Your task to perform on an android device: change your default location settings in chrome Image 0: 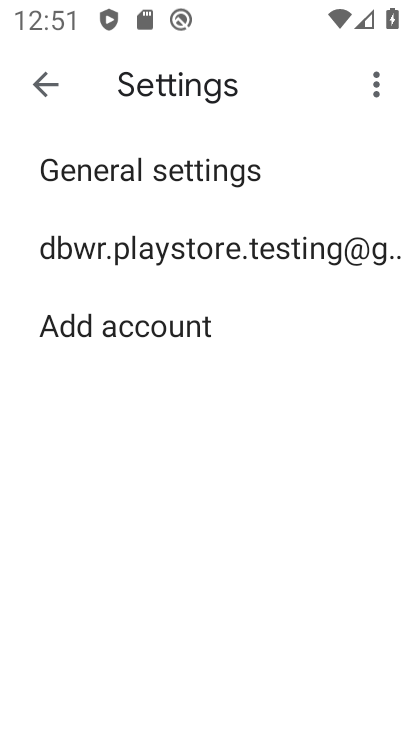
Step 0: press home button
Your task to perform on an android device: change your default location settings in chrome Image 1: 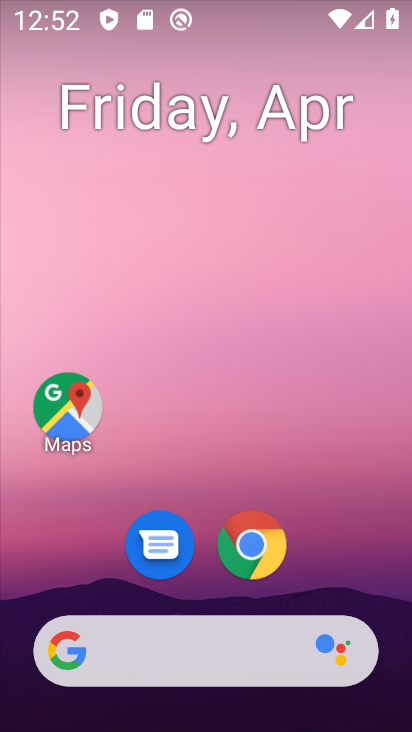
Step 1: drag from (318, 379) to (310, 60)
Your task to perform on an android device: change your default location settings in chrome Image 2: 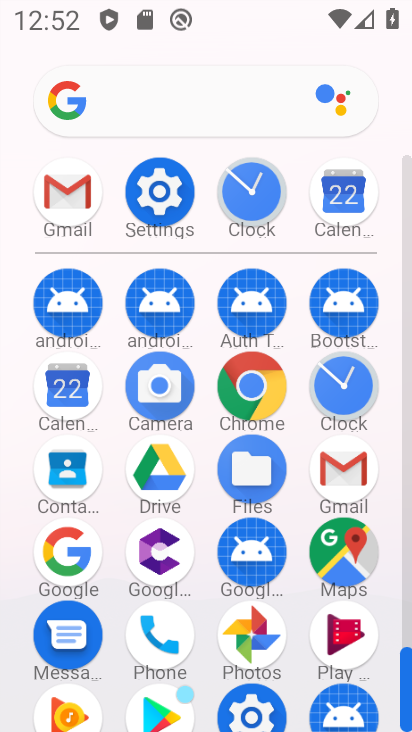
Step 2: click (254, 385)
Your task to perform on an android device: change your default location settings in chrome Image 3: 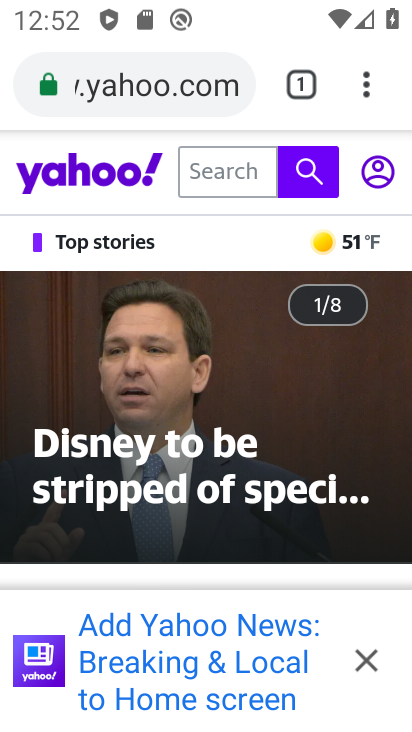
Step 3: click (372, 84)
Your task to perform on an android device: change your default location settings in chrome Image 4: 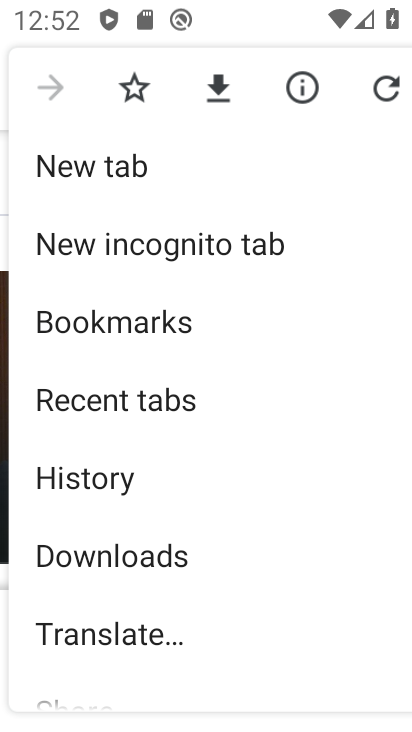
Step 4: drag from (284, 475) to (258, 116)
Your task to perform on an android device: change your default location settings in chrome Image 5: 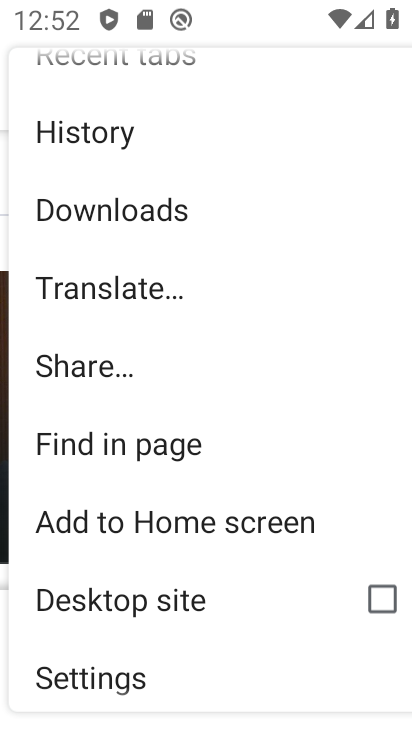
Step 5: click (153, 678)
Your task to perform on an android device: change your default location settings in chrome Image 6: 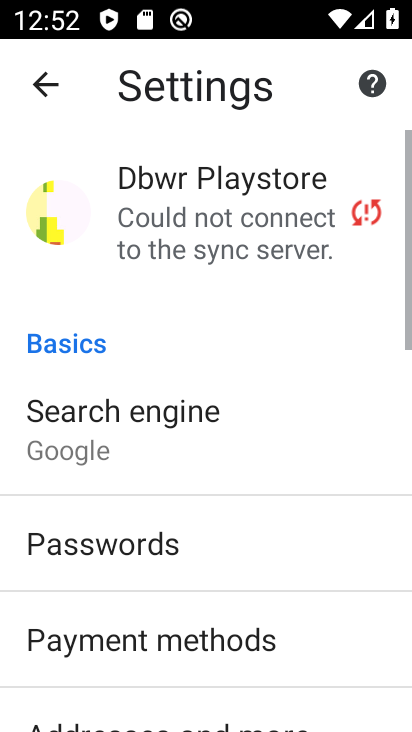
Step 6: drag from (201, 643) to (204, 216)
Your task to perform on an android device: change your default location settings in chrome Image 7: 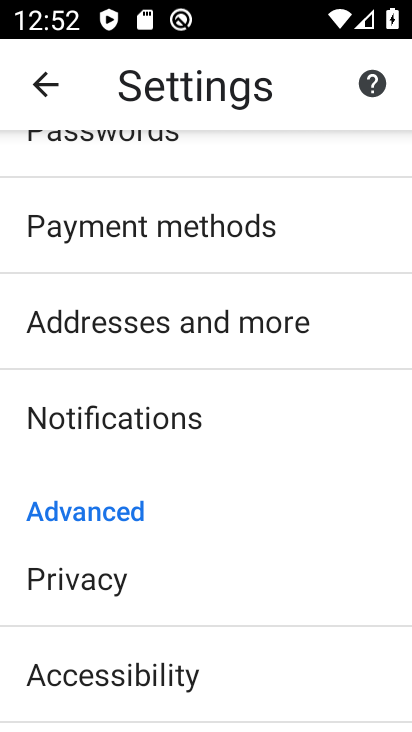
Step 7: drag from (234, 671) to (236, 330)
Your task to perform on an android device: change your default location settings in chrome Image 8: 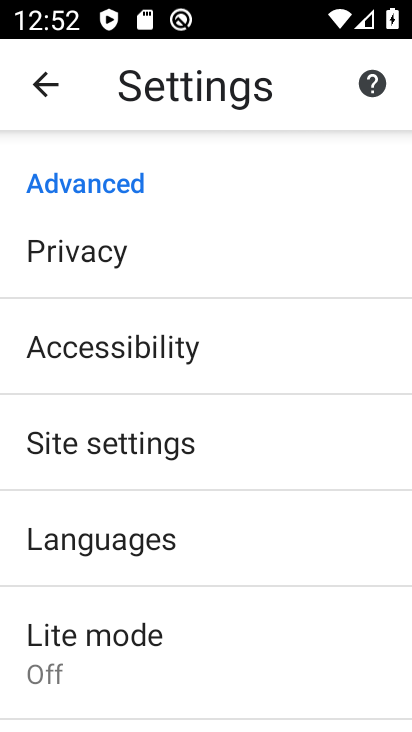
Step 8: click (144, 448)
Your task to perform on an android device: change your default location settings in chrome Image 9: 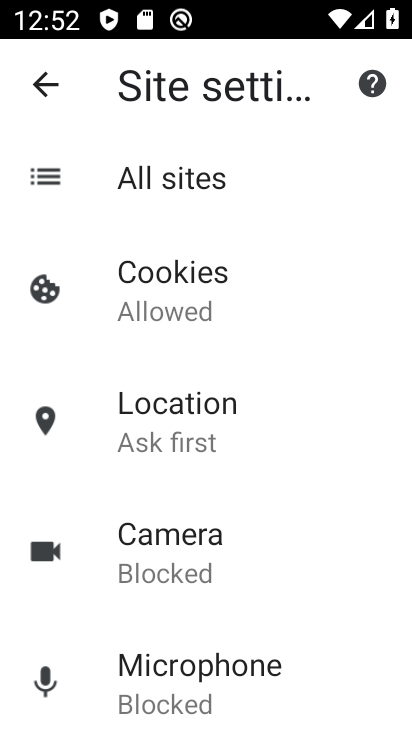
Step 9: click (160, 422)
Your task to perform on an android device: change your default location settings in chrome Image 10: 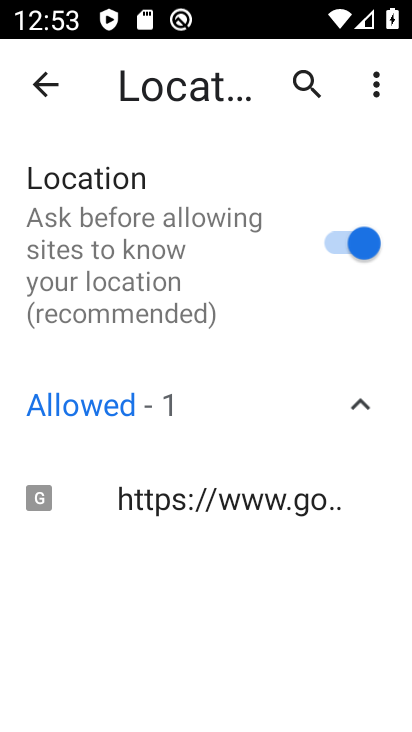
Step 10: click (339, 241)
Your task to perform on an android device: change your default location settings in chrome Image 11: 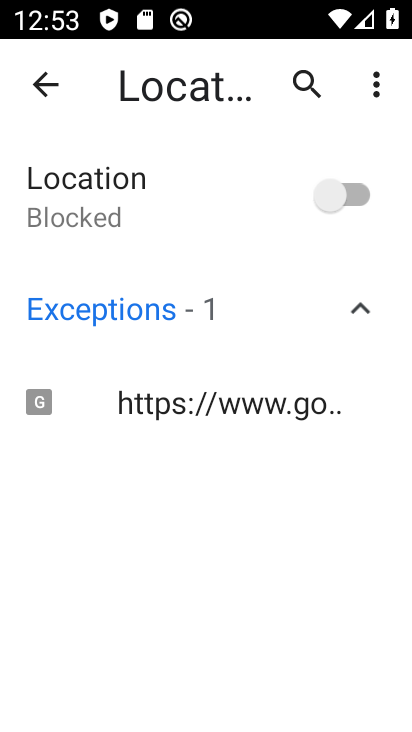
Step 11: task complete